Your task to perform on an android device: toggle notifications settings in the gmail app Image 0: 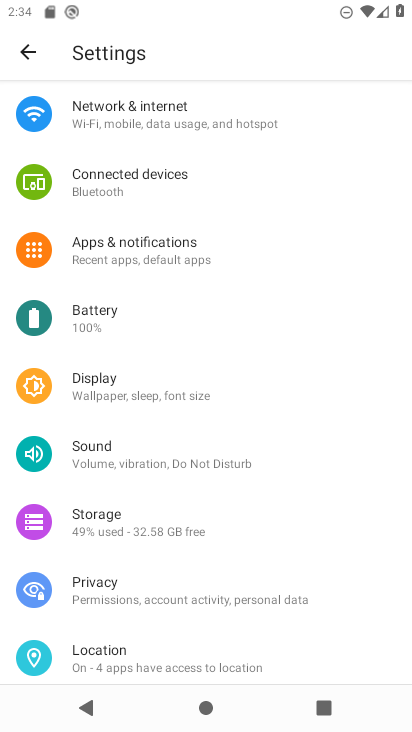
Step 0: press home button
Your task to perform on an android device: toggle notifications settings in the gmail app Image 1: 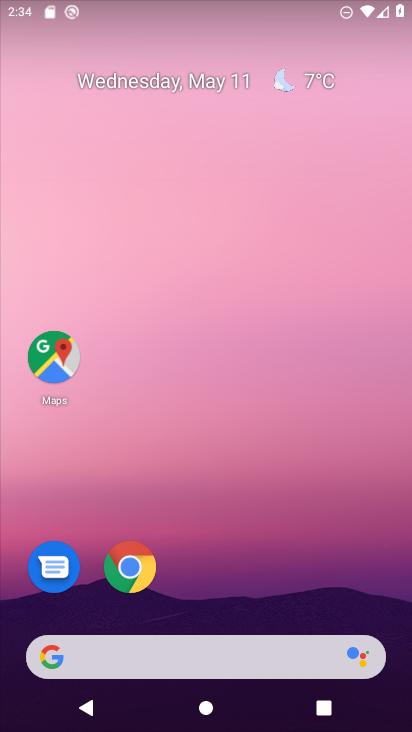
Step 1: drag from (321, 601) to (248, 204)
Your task to perform on an android device: toggle notifications settings in the gmail app Image 2: 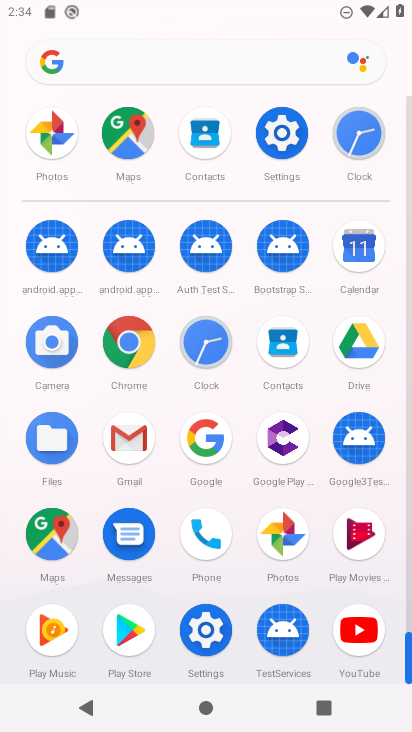
Step 2: click (121, 448)
Your task to perform on an android device: toggle notifications settings in the gmail app Image 3: 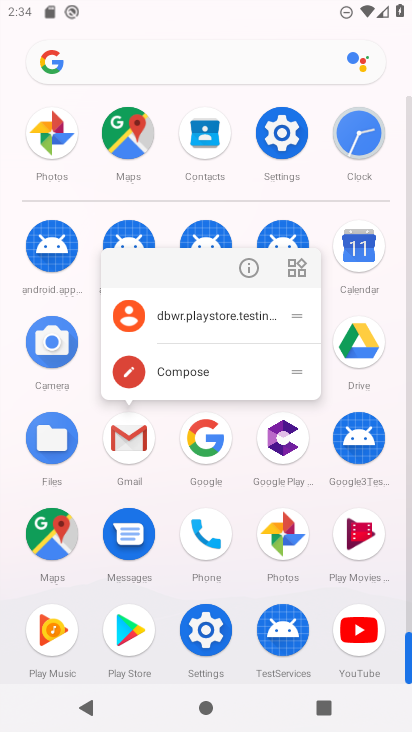
Step 3: click (251, 260)
Your task to perform on an android device: toggle notifications settings in the gmail app Image 4: 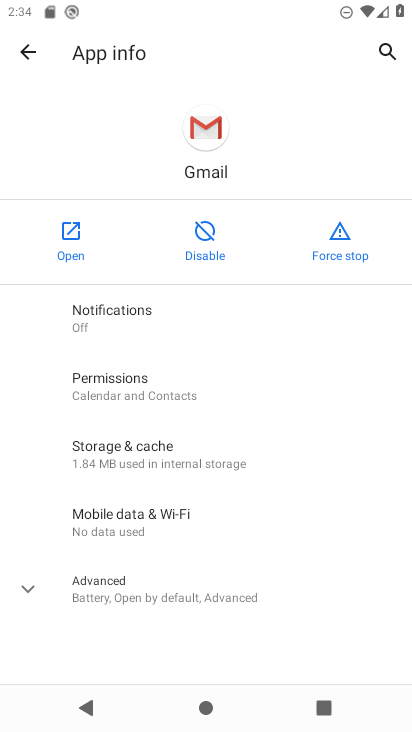
Step 4: click (100, 315)
Your task to perform on an android device: toggle notifications settings in the gmail app Image 5: 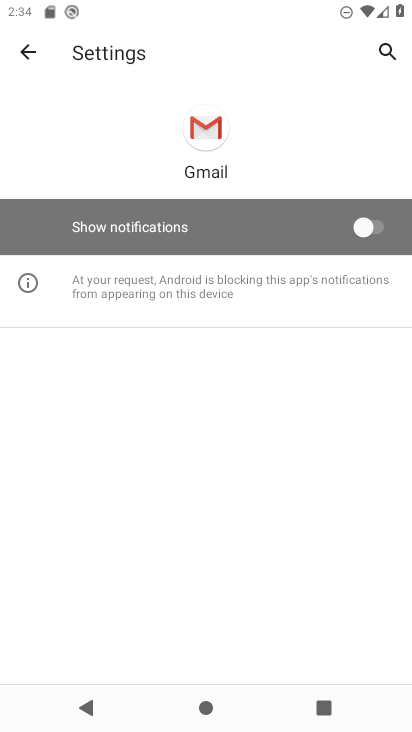
Step 5: click (362, 236)
Your task to perform on an android device: toggle notifications settings in the gmail app Image 6: 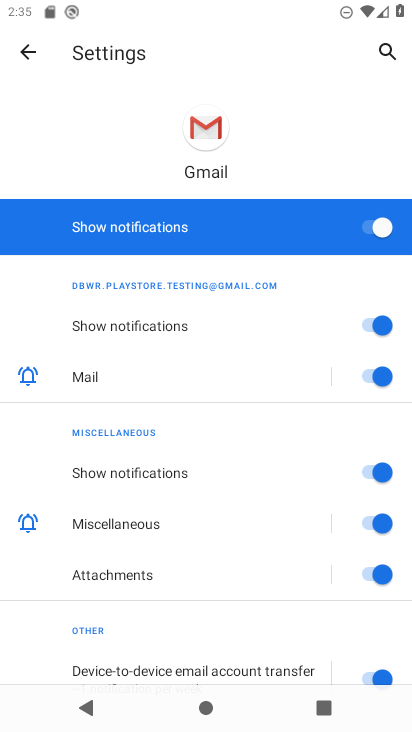
Step 6: task complete